Your task to perform on an android device: Open Chrome and go to the settings page Image 0: 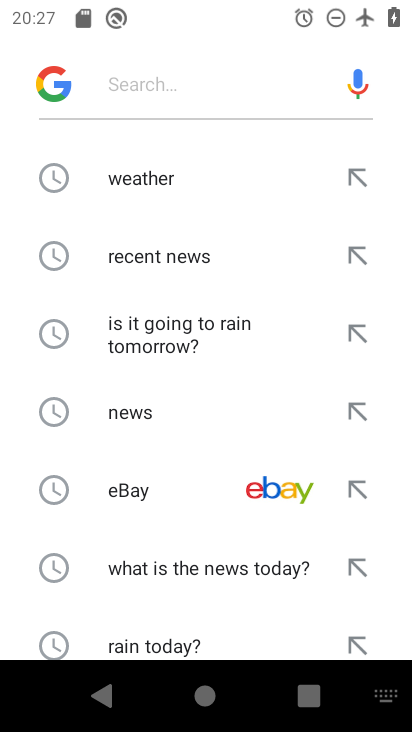
Step 0: press back button
Your task to perform on an android device: Open Chrome and go to the settings page Image 1: 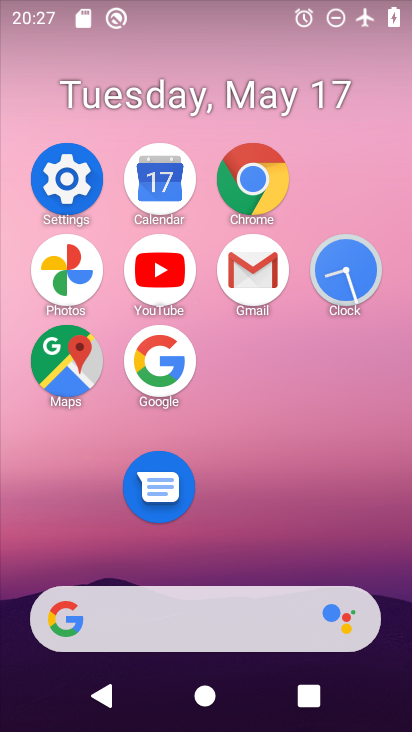
Step 1: click (266, 202)
Your task to perform on an android device: Open Chrome and go to the settings page Image 2: 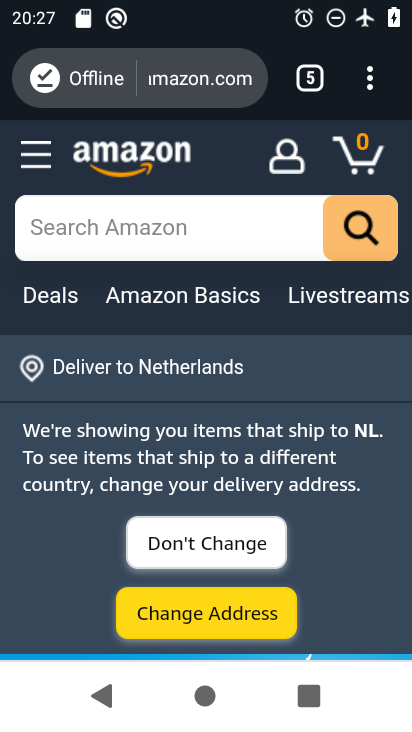
Step 2: click (369, 76)
Your task to perform on an android device: Open Chrome and go to the settings page Image 3: 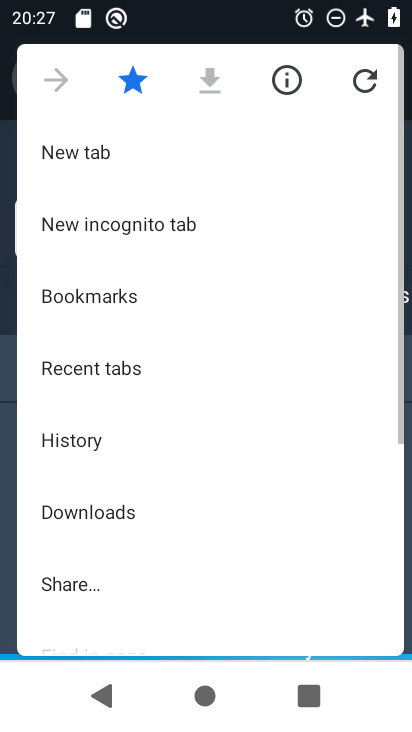
Step 3: drag from (180, 484) to (176, 150)
Your task to perform on an android device: Open Chrome and go to the settings page Image 4: 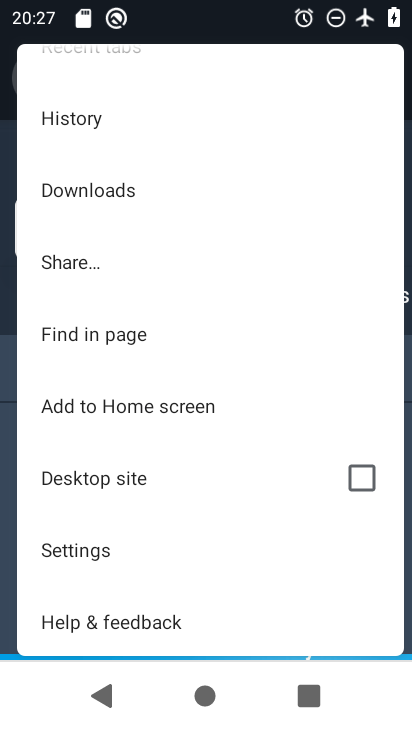
Step 4: click (93, 538)
Your task to perform on an android device: Open Chrome and go to the settings page Image 5: 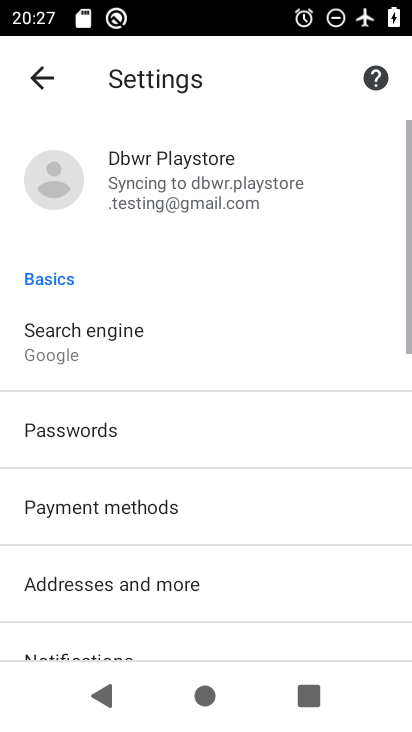
Step 5: task complete